Your task to perform on an android device: turn on data saver in the chrome app Image 0: 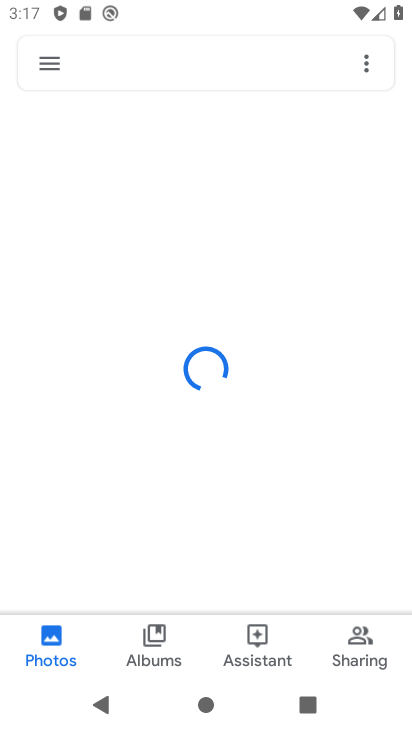
Step 0: press home button
Your task to perform on an android device: turn on data saver in the chrome app Image 1: 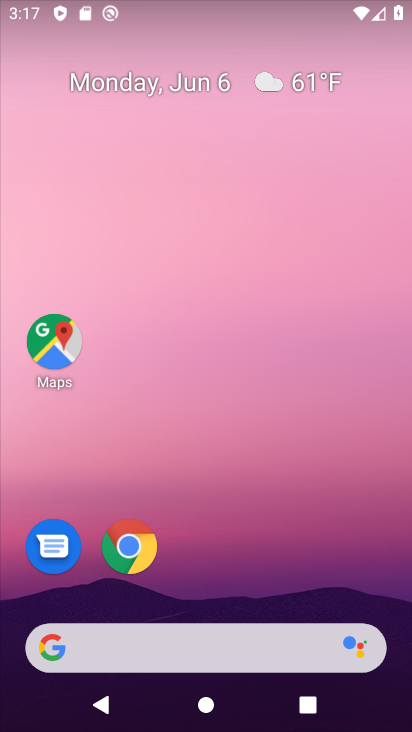
Step 1: click (134, 537)
Your task to perform on an android device: turn on data saver in the chrome app Image 2: 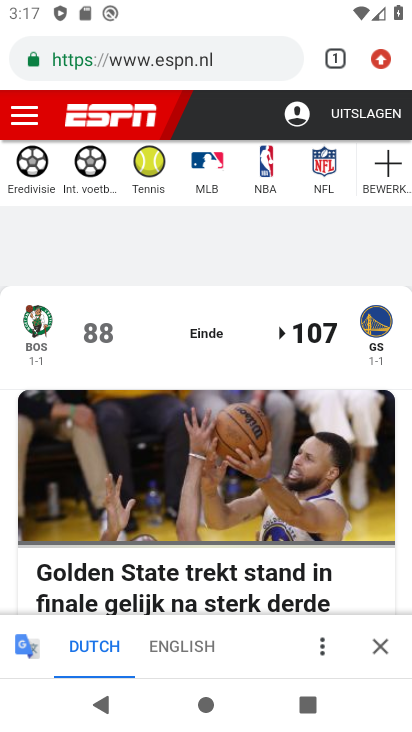
Step 2: click (375, 54)
Your task to perform on an android device: turn on data saver in the chrome app Image 3: 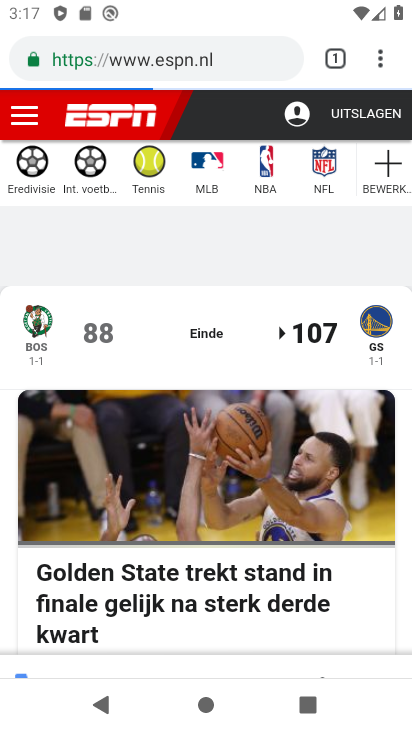
Step 3: click (384, 61)
Your task to perform on an android device: turn on data saver in the chrome app Image 4: 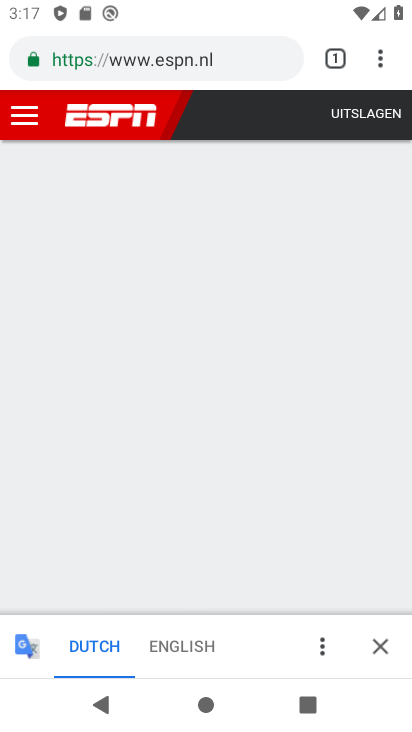
Step 4: drag from (379, 62) to (243, 568)
Your task to perform on an android device: turn on data saver in the chrome app Image 5: 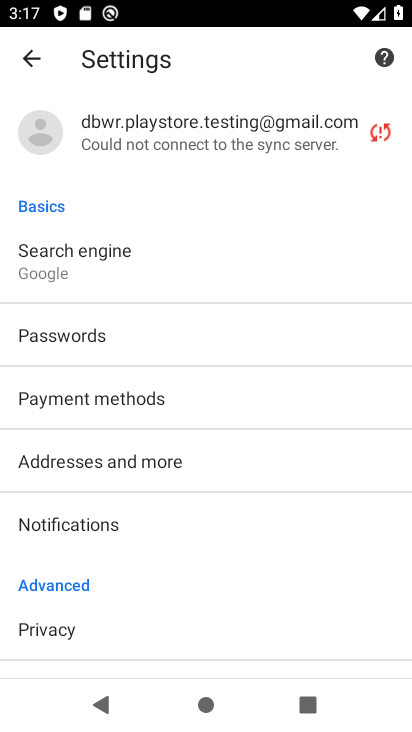
Step 5: drag from (136, 594) to (232, 120)
Your task to perform on an android device: turn on data saver in the chrome app Image 6: 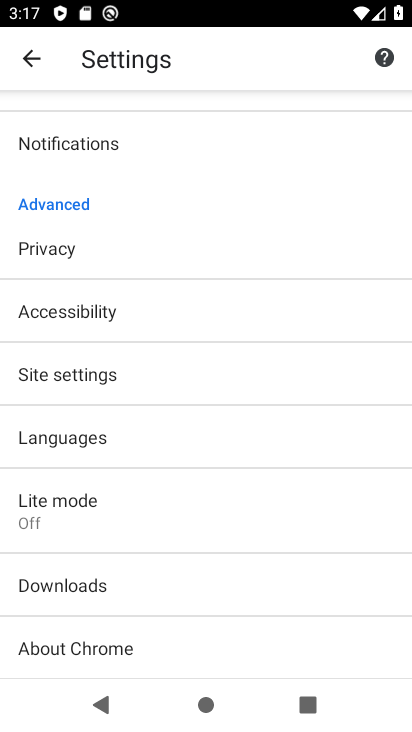
Step 6: click (71, 488)
Your task to perform on an android device: turn on data saver in the chrome app Image 7: 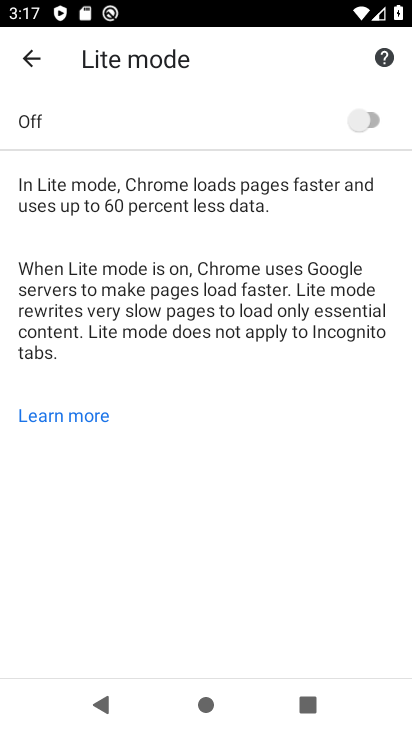
Step 7: click (357, 121)
Your task to perform on an android device: turn on data saver in the chrome app Image 8: 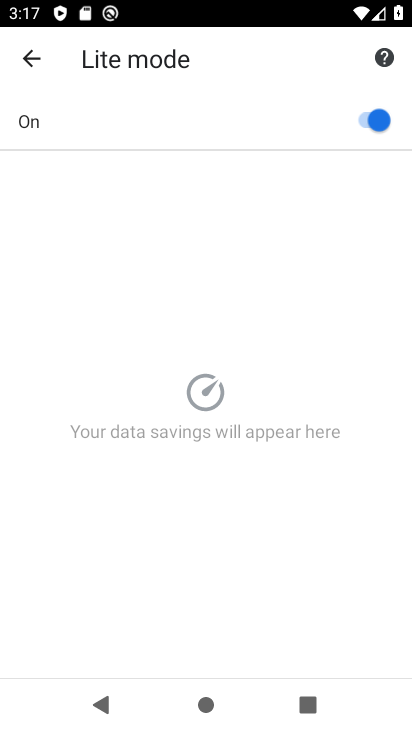
Step 8: task complete